Your task to perform on an android device: Go to ESPN.com Image 0: 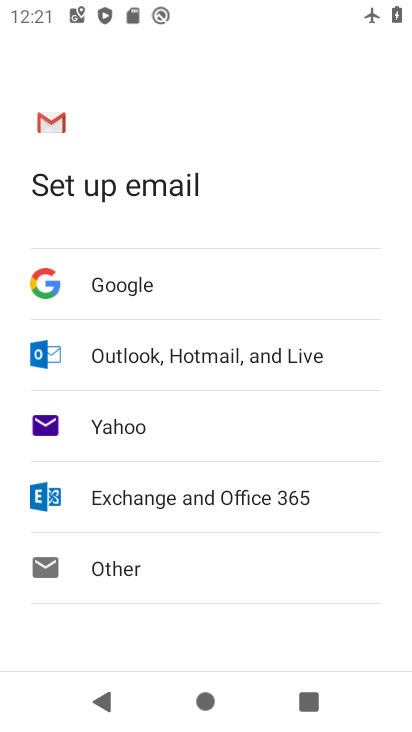
Step 0: press home button
Your task to perform on an android device: Go to ESPN.com Image 1: 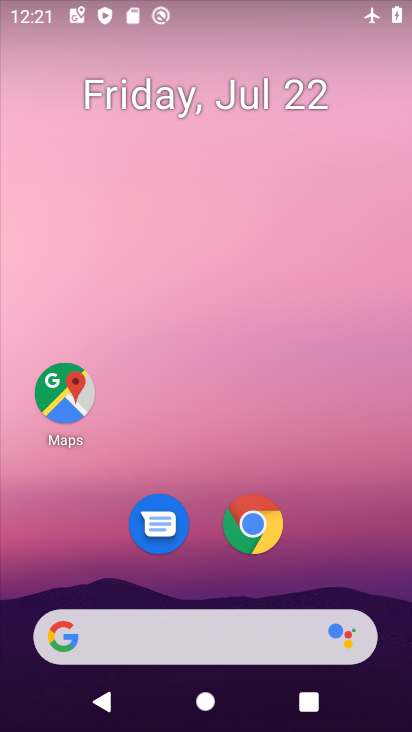
Step 1: click (208, 658)
Your task to perform on an android device: Go to ESPN.com Image 2: 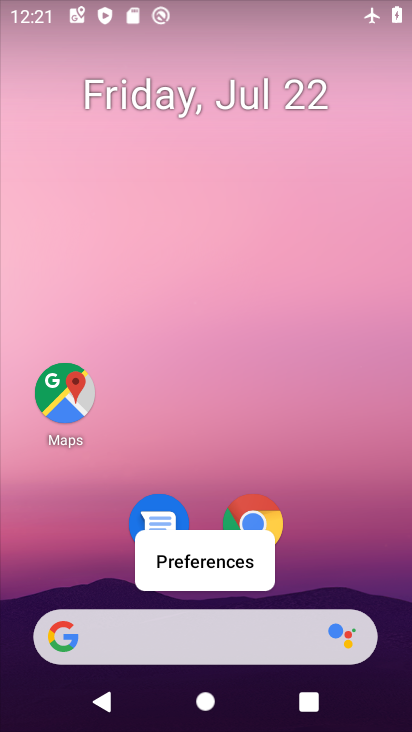
Step 2: click (202, 647)
Your task to perform on an android device: Go to ESPN.com Image 3: 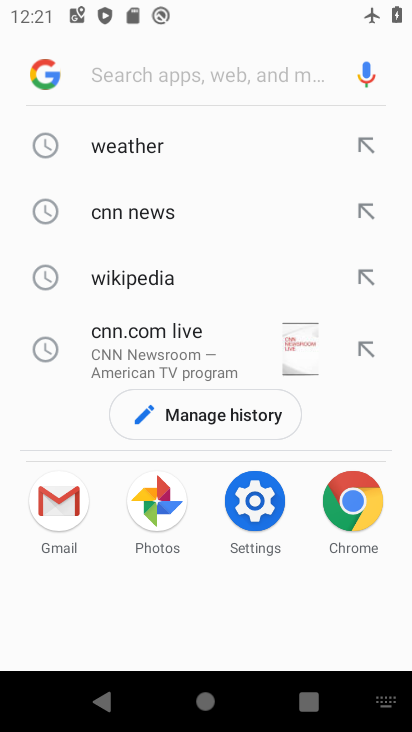
Step 3: type "espn.com"
Your task to perform on an android device: Go to ESPN.com Image 4: 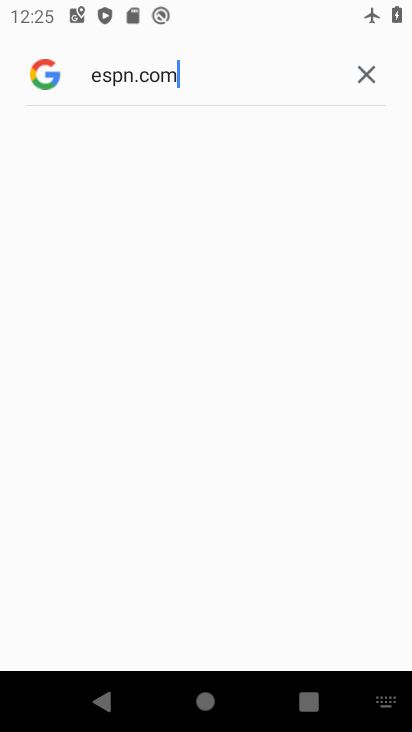
Step 4: task complete